Your task to perform on an android device: Go to CNN.com Image 0: 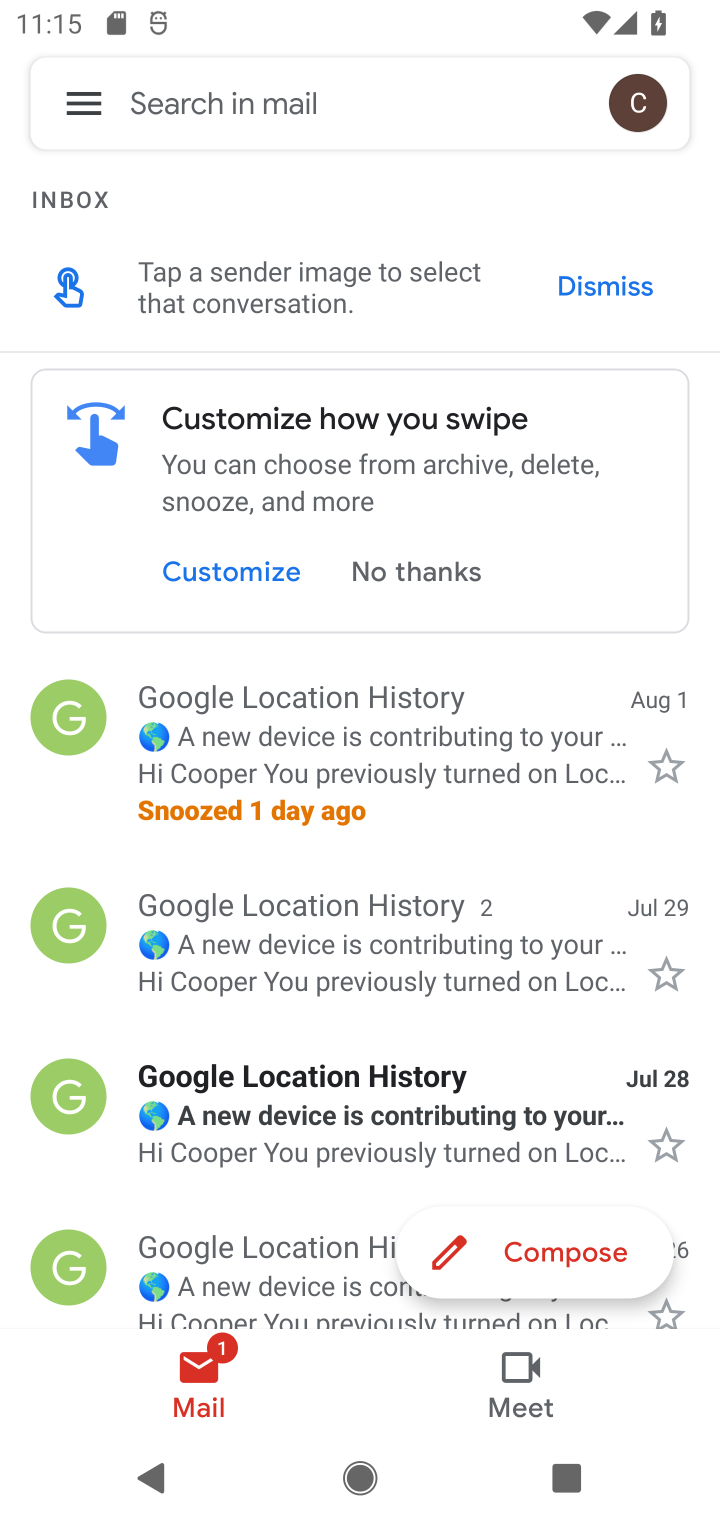
Step 0: press home button
Your task to perform on an android device: Go to CNN.com Image 1: 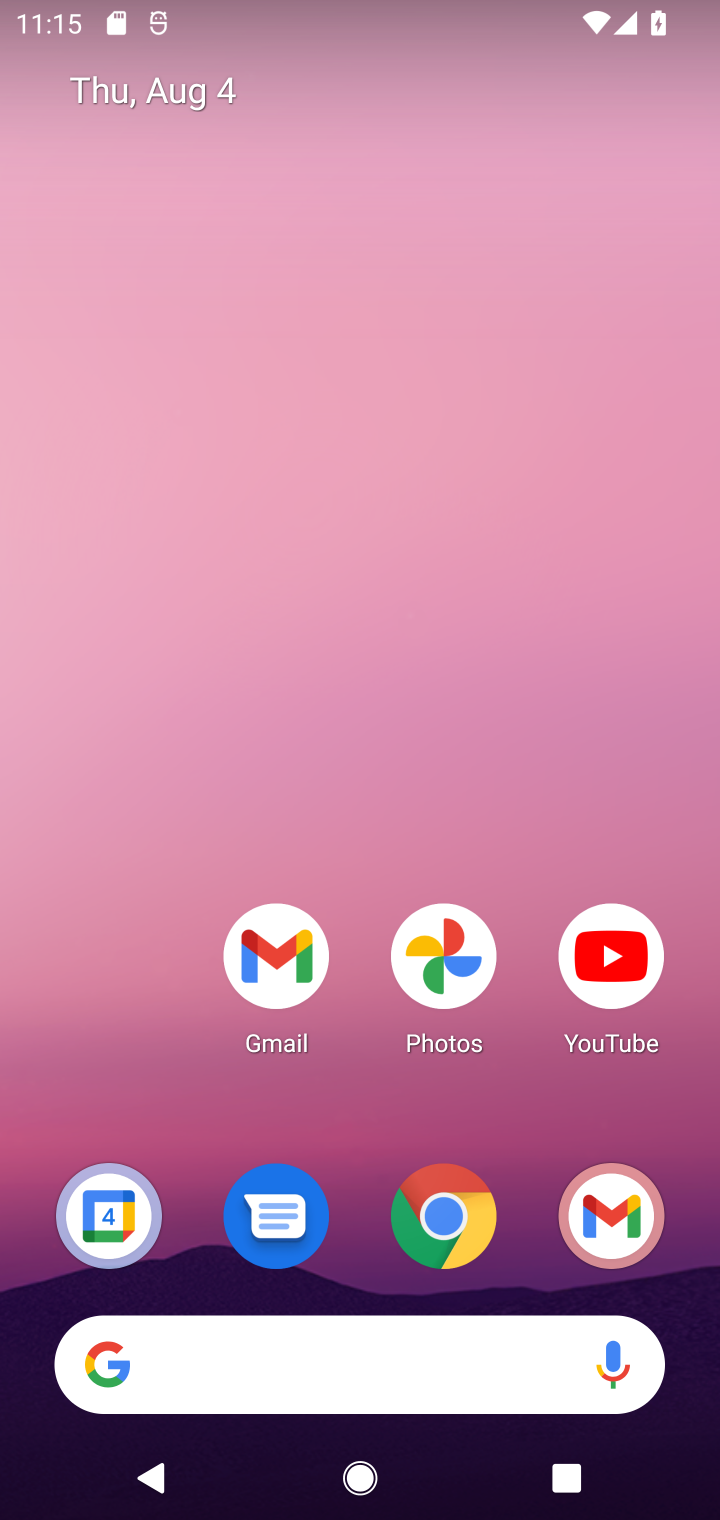
Step 1: click (477, 1376)
Your task to perform on an android device: Go to CNN.com Image 2: 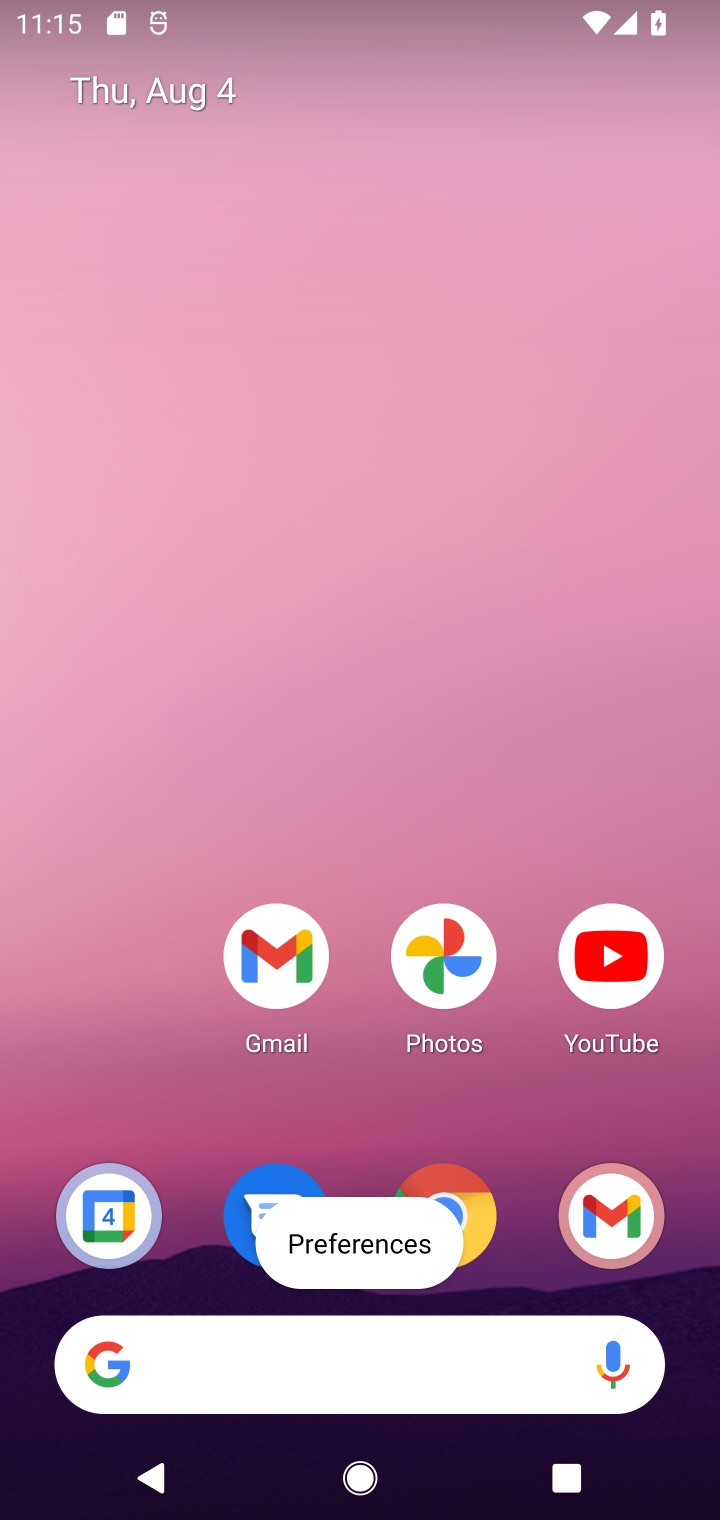
Step 2: click (452, 1359)
Your task to perform on an android device: Go to CNN.com Image 3: 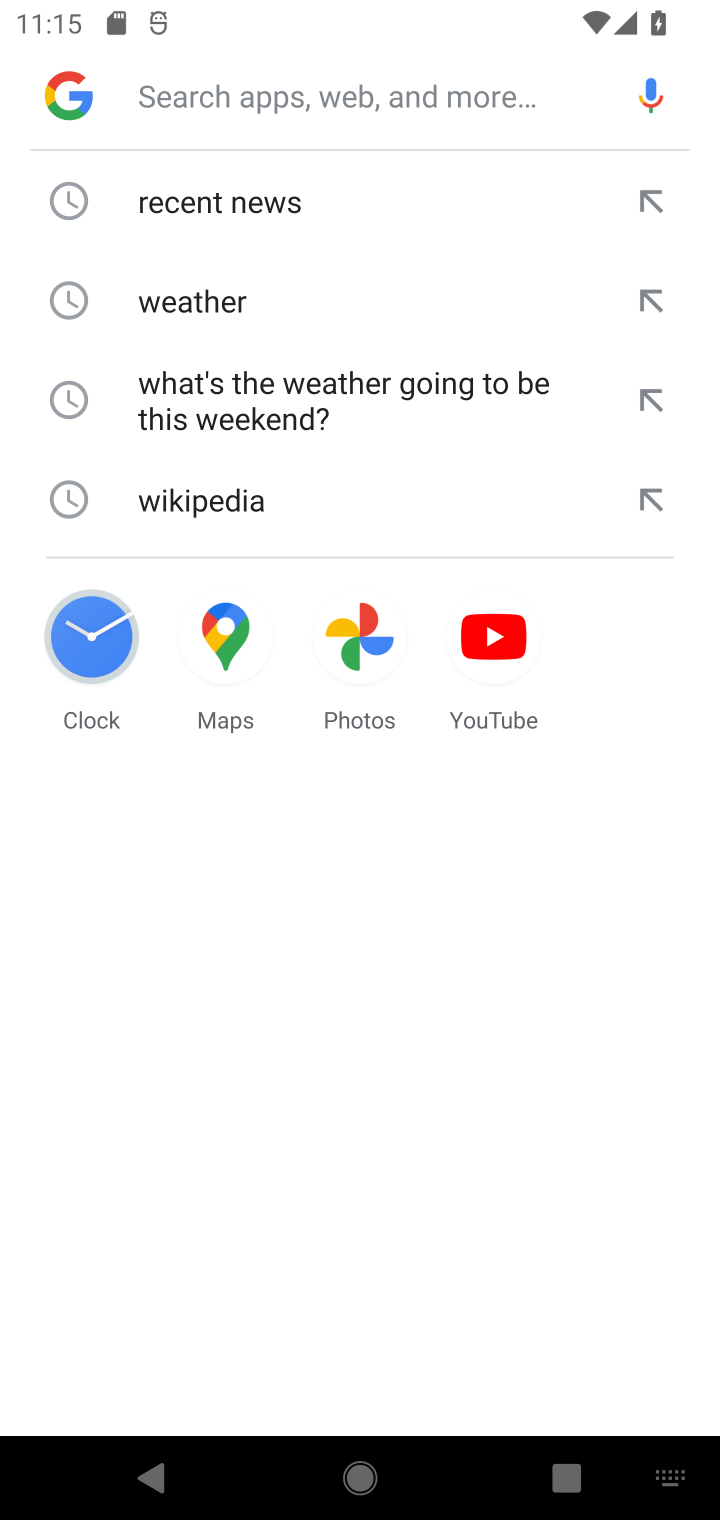
Step 3: type "cnn.com"
Your task to perform on an android device: Go to CNN.com Image 4: 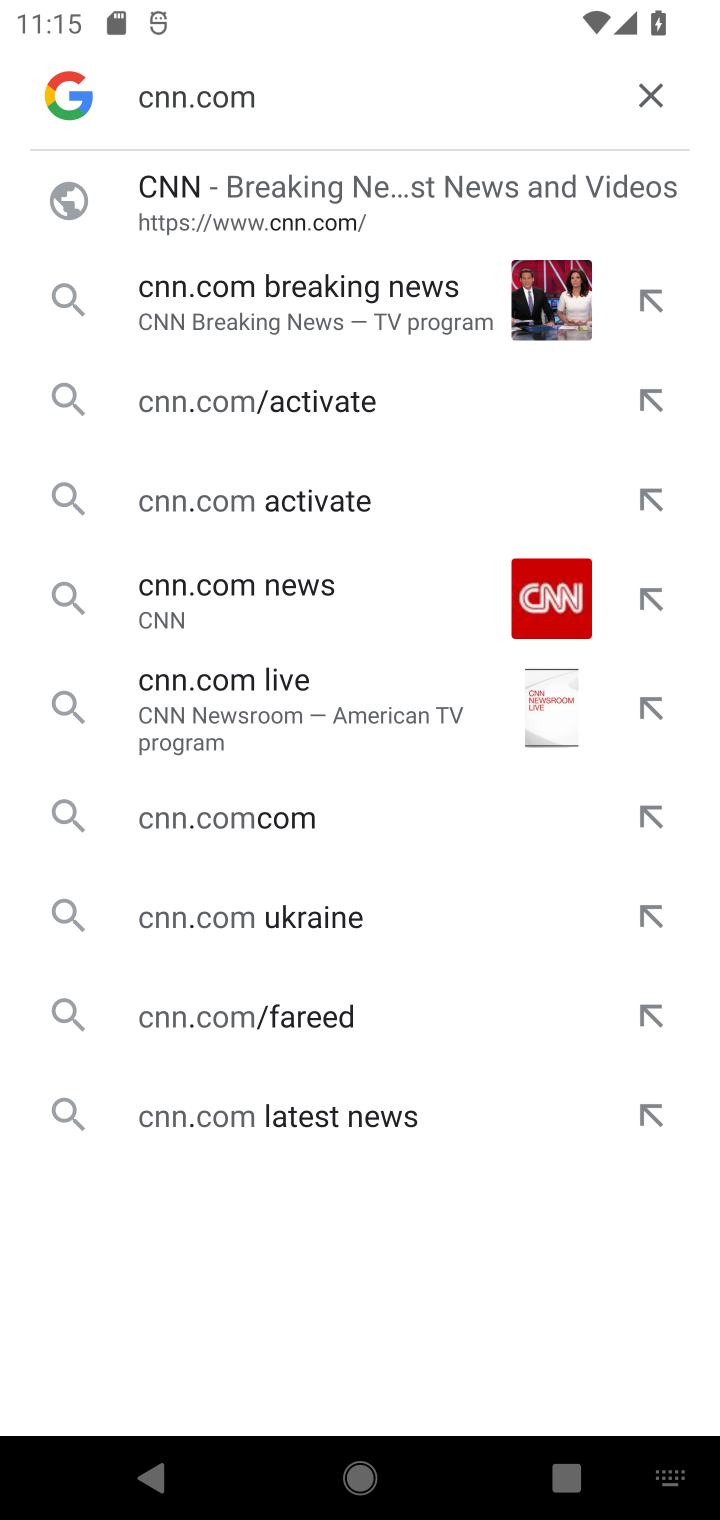
Step 4: click (387, 232)
Your task to perform on an android device: Go to CNN.com Image 5: 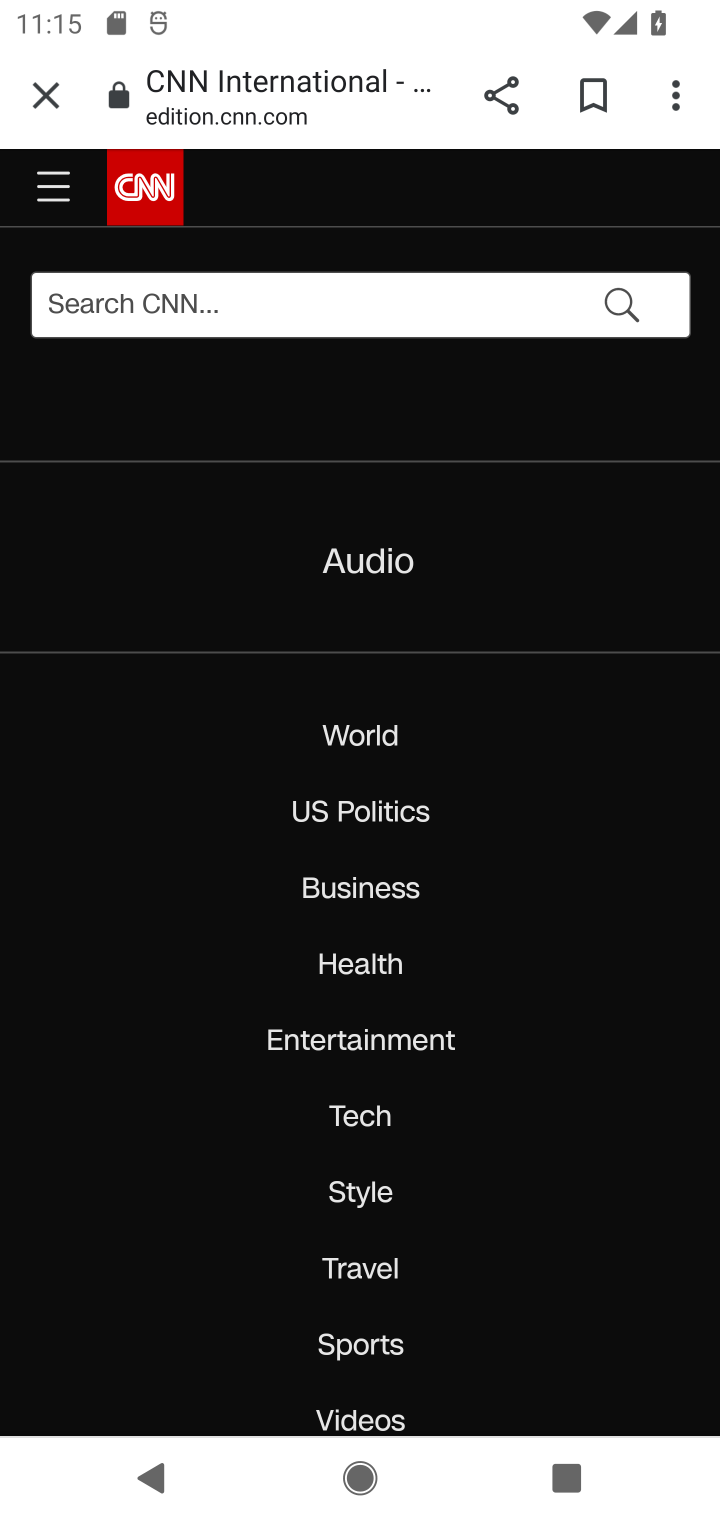
Step 5: task complete